Your task to perform on an android device: View the shopping cart on newegg. Image 0: 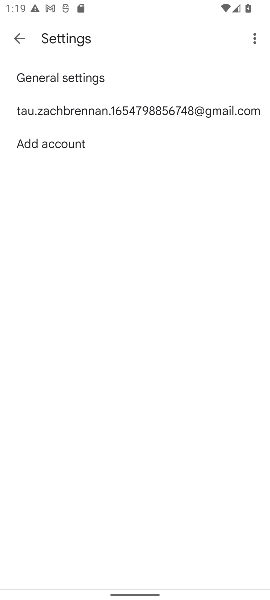
Step 0: press home button
Your task to perform on an android device: View the shopping cart on newegg. Image 1: 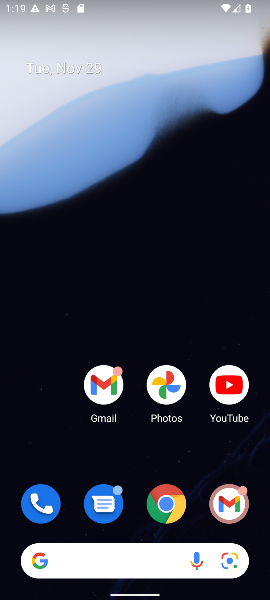
Step 1: click (163, 508)
Your task to perform on an android device: View the shopping cart on newegg. Image 2: 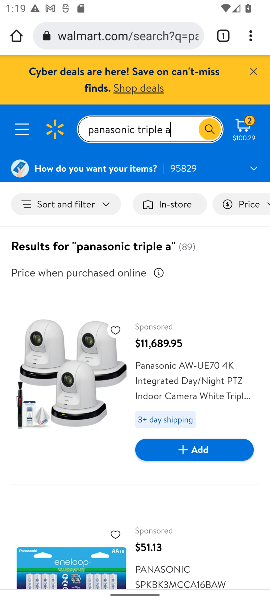
Step 2: click (102, 40)
Your task to perform on an android device: View the shopping cart on newegg. Image 3: 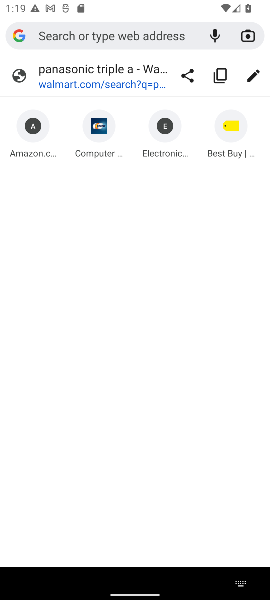
Step 3: click (98, 135)
Your task to perform on an android device: View the shopping cart on newegg. Image 4: 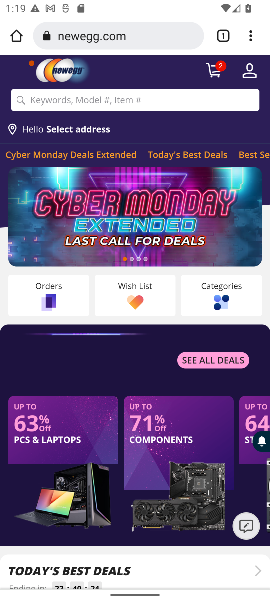
Step 4: click (215, 71)
Your task to perform on an android device: View the shopping cart on newegg. Image 5: 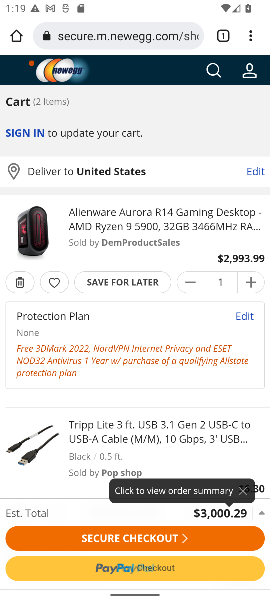
Step 5: task complete